Your task to perform on an android device: Clear all items from cart on target.com. Search for "amazon basics triple a" on target.com, select the first entry, and add it to the cart. Image 0: 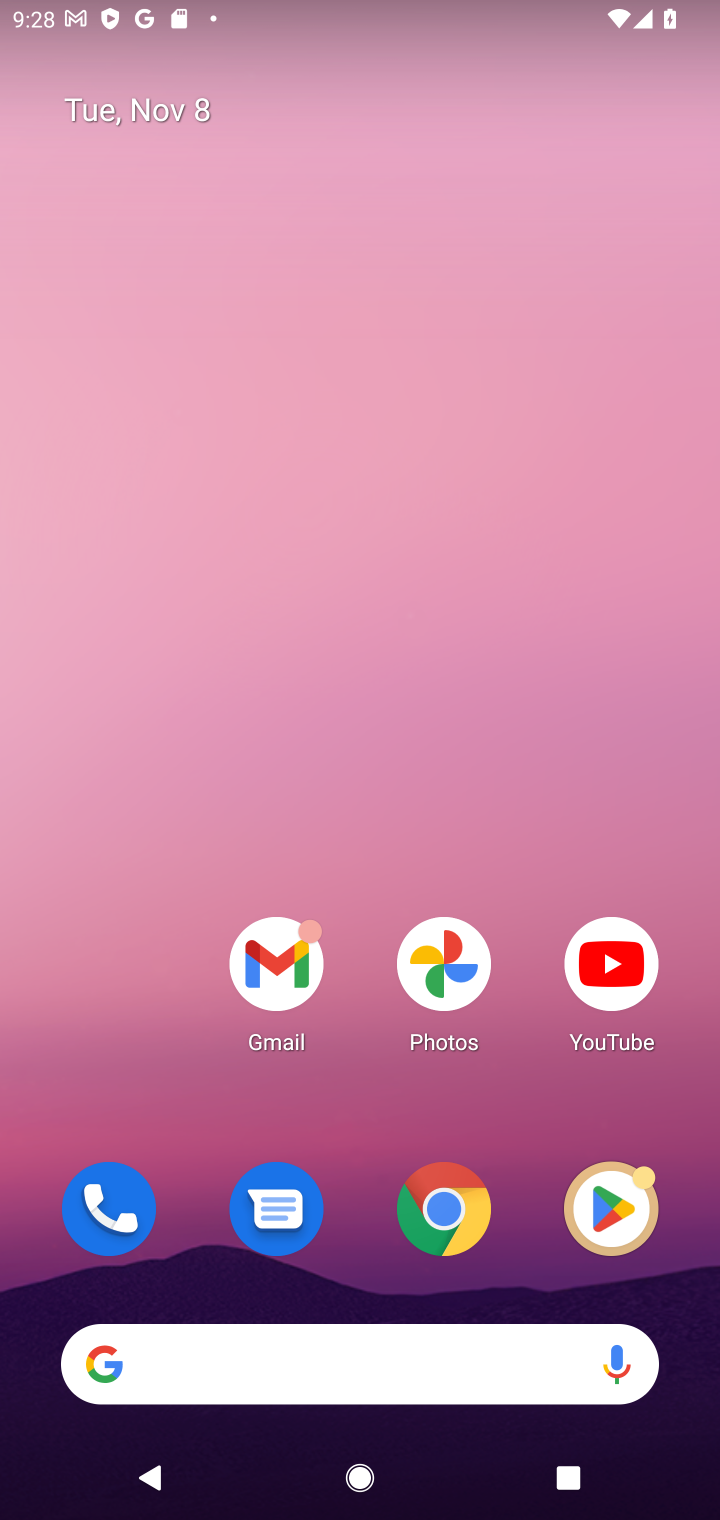
Step 0: click (453, 1224)
Your task to perform on an android device: Clear all items from cart on target.com. Search for "amazon basics triple a" on target.com, select the first entry, and add it to the cart. Image 1: 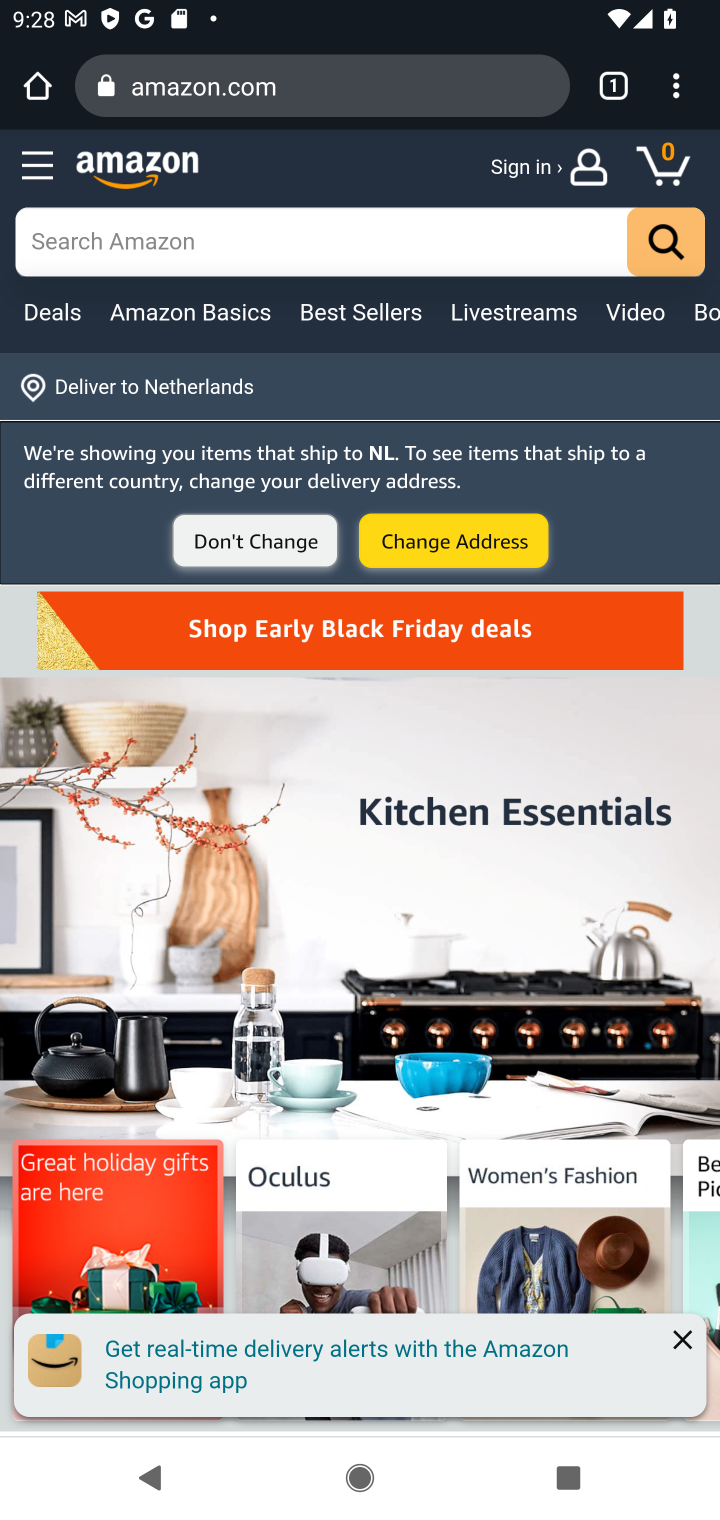
Step 1: click (626, 94)
Your task to perform on an android device: Clear all items from cart on target.com. Search for "amazon basics triple a" on target.com, select the first entry, and add it to the cart. Image 2: 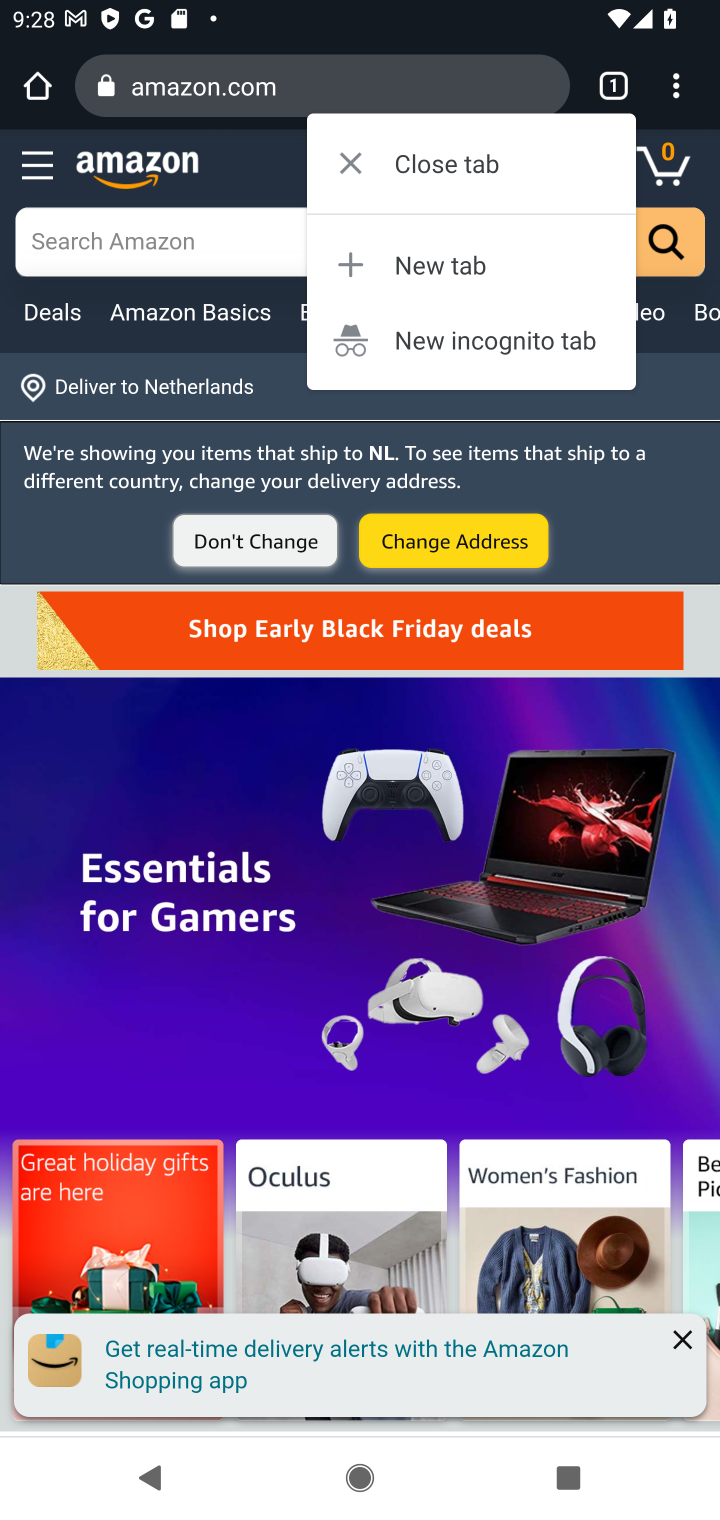
Step 2: click (614, 81)
Your task to perform on an android device: Clear all items from cart on target.com. Search for "amazon basics triple a" on target.com, select the first entry, and add it to the cart. Image 3: 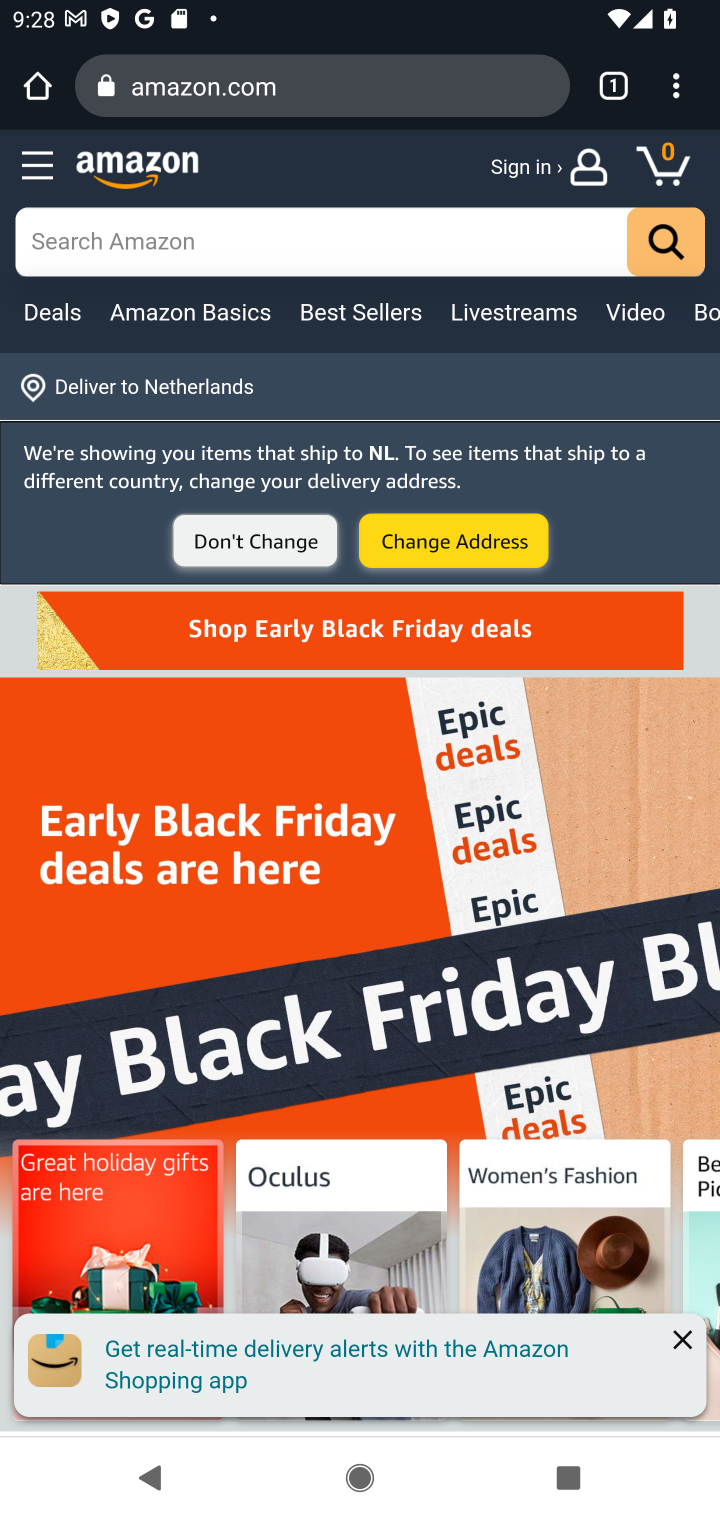
Step 3: click (612, 87)
Your task to perform on an android device: Clear all items from cart on target.com. Search for "amazon basics triple a" on target.com, select the first entry, and add it to the cart. Image 4: 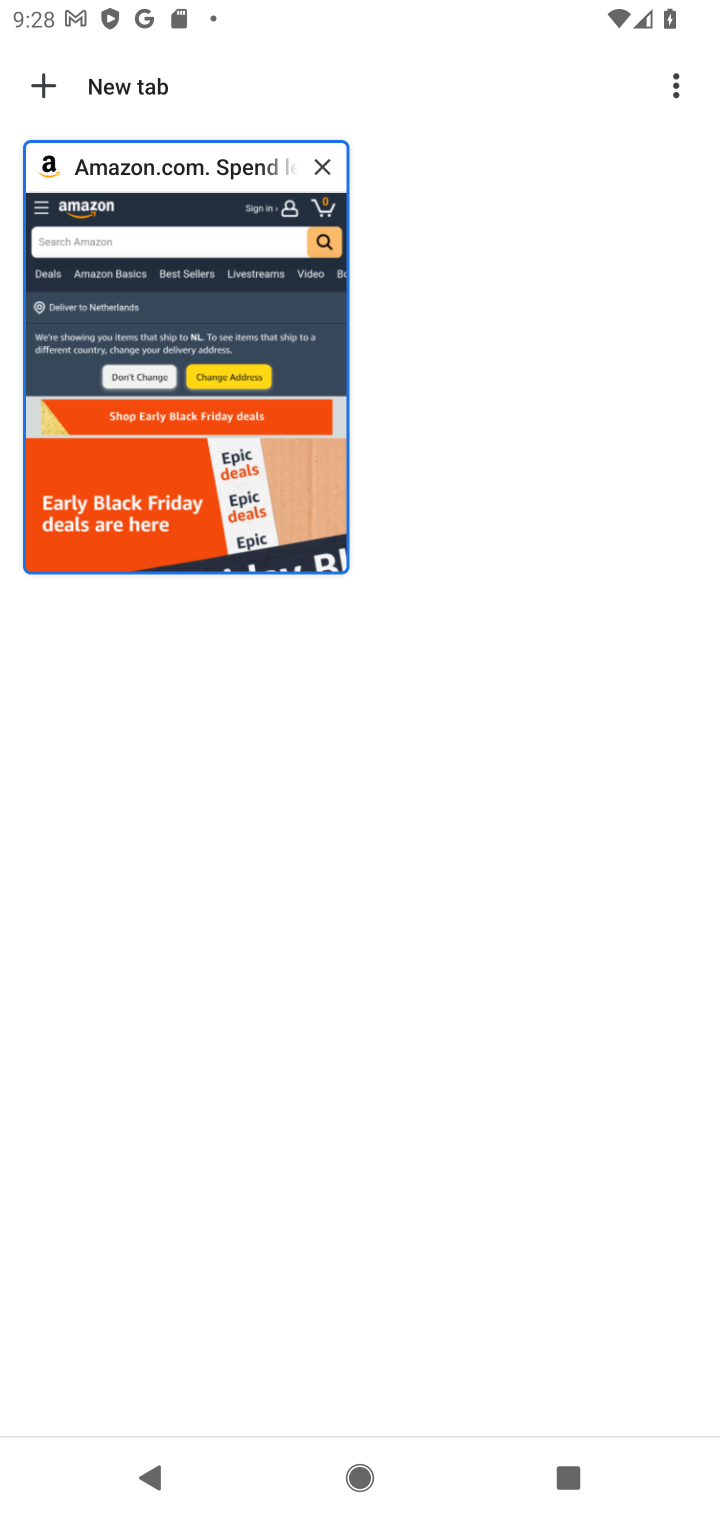
Step 4: click (42, 87)
Your task to perform on an android device: Clear all items from cart on target.com. Search for "amazon basics triple a" on target.com, select the first entry, and add it to the cart. Image 5: 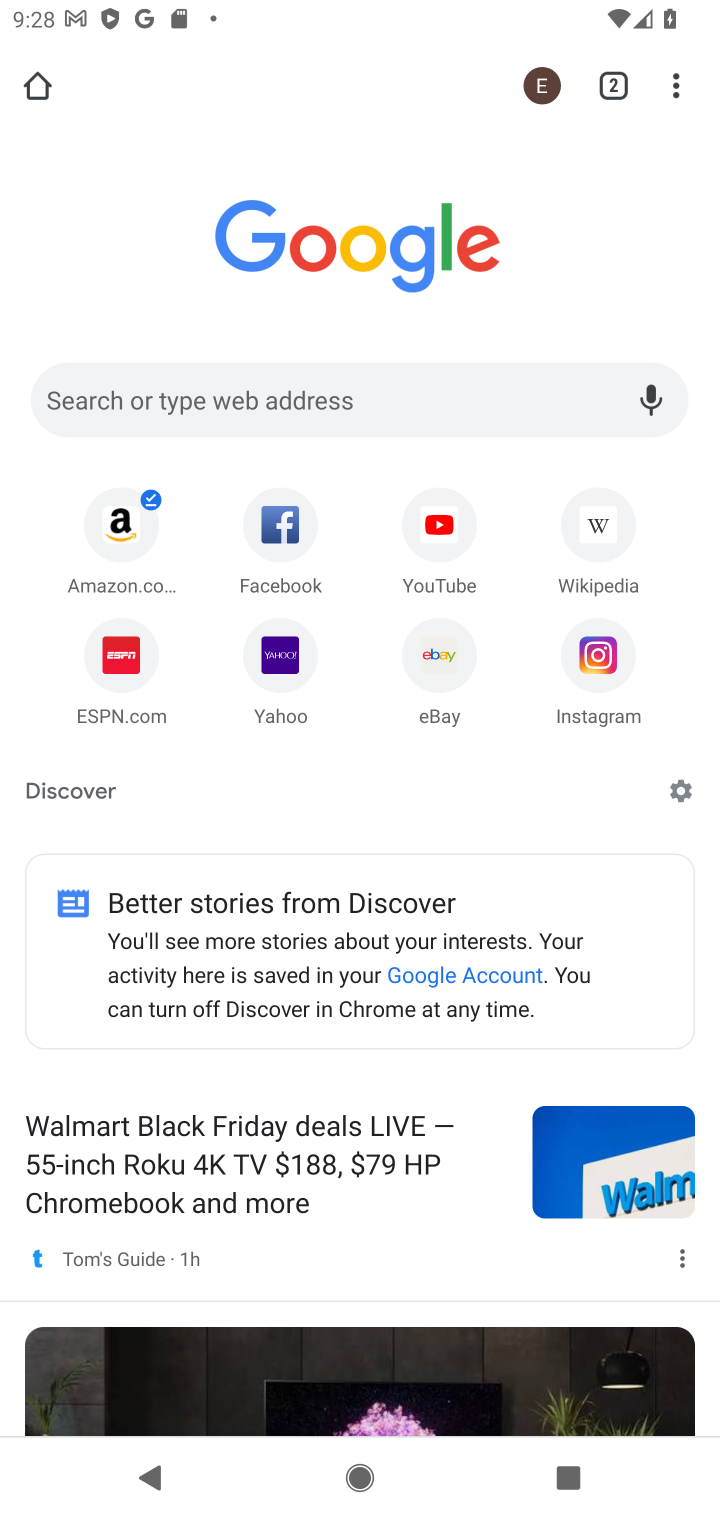
Step 5: click (221, 392)
Your task to perform on an android device: Clear all items from cart on target.com. Search for "amazon basics triple a" on target.com, select the first entry, and add it to the cart. Image 6: 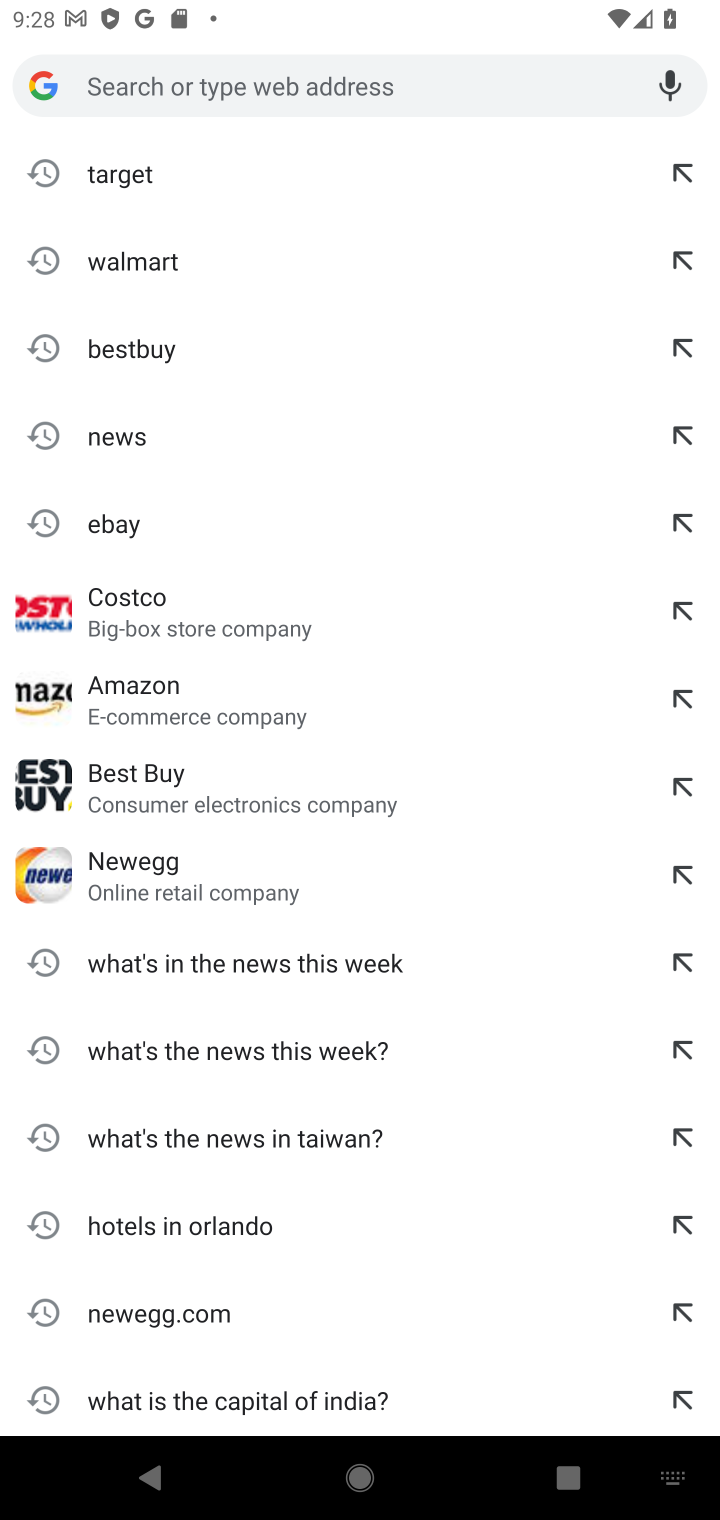
Step 6: click (140, 157)
Your task to perform on an android device: Clear all items from cart on target.com. Search for "amazon basics triple a" on target.com, select the first entry, and add it to the cart. Image 7: 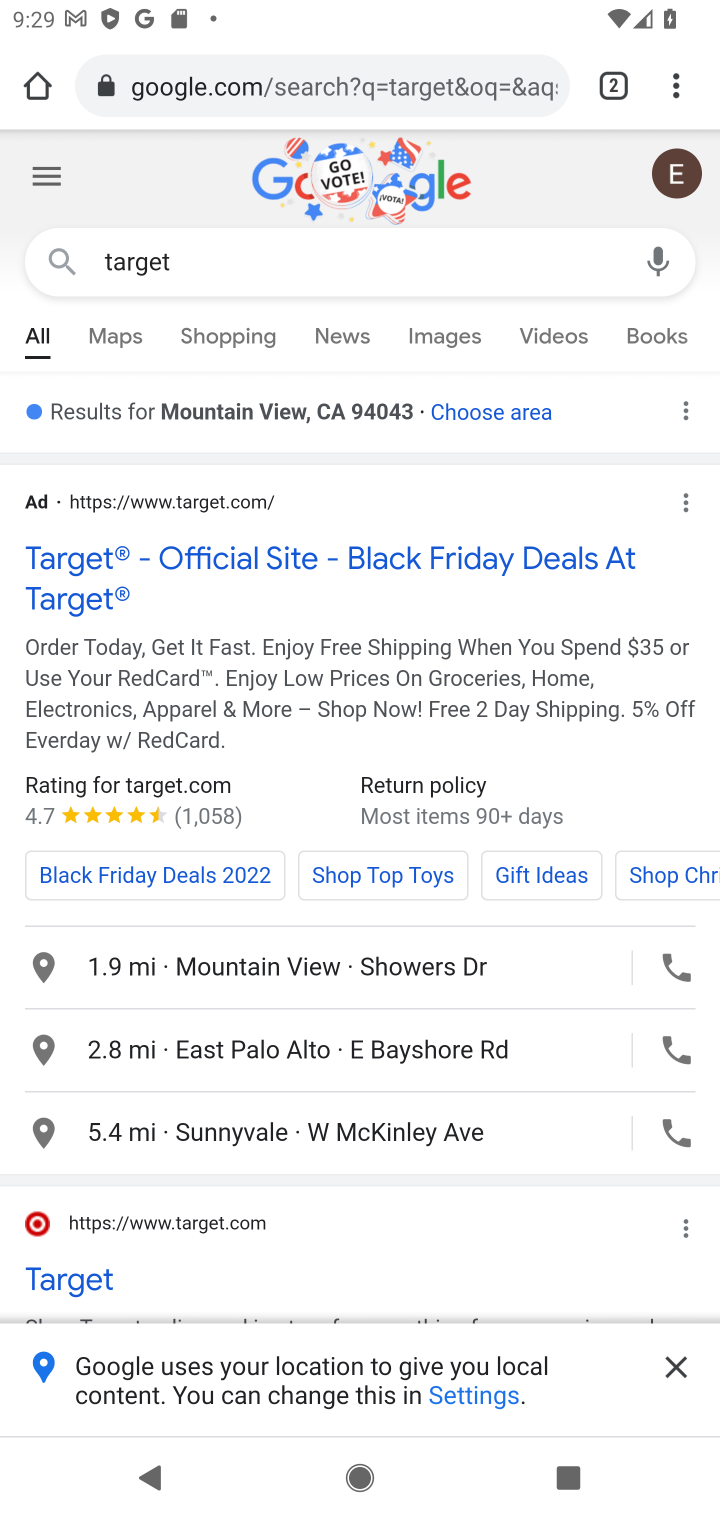
Step 7: drag from (251, 1131) to (349, 589)
Your task to perform on an android device: Clear all items from cart on target.com. Search for "amazon basics triple a" on target.com, select the first entry, and add it to the cart. Image 8: 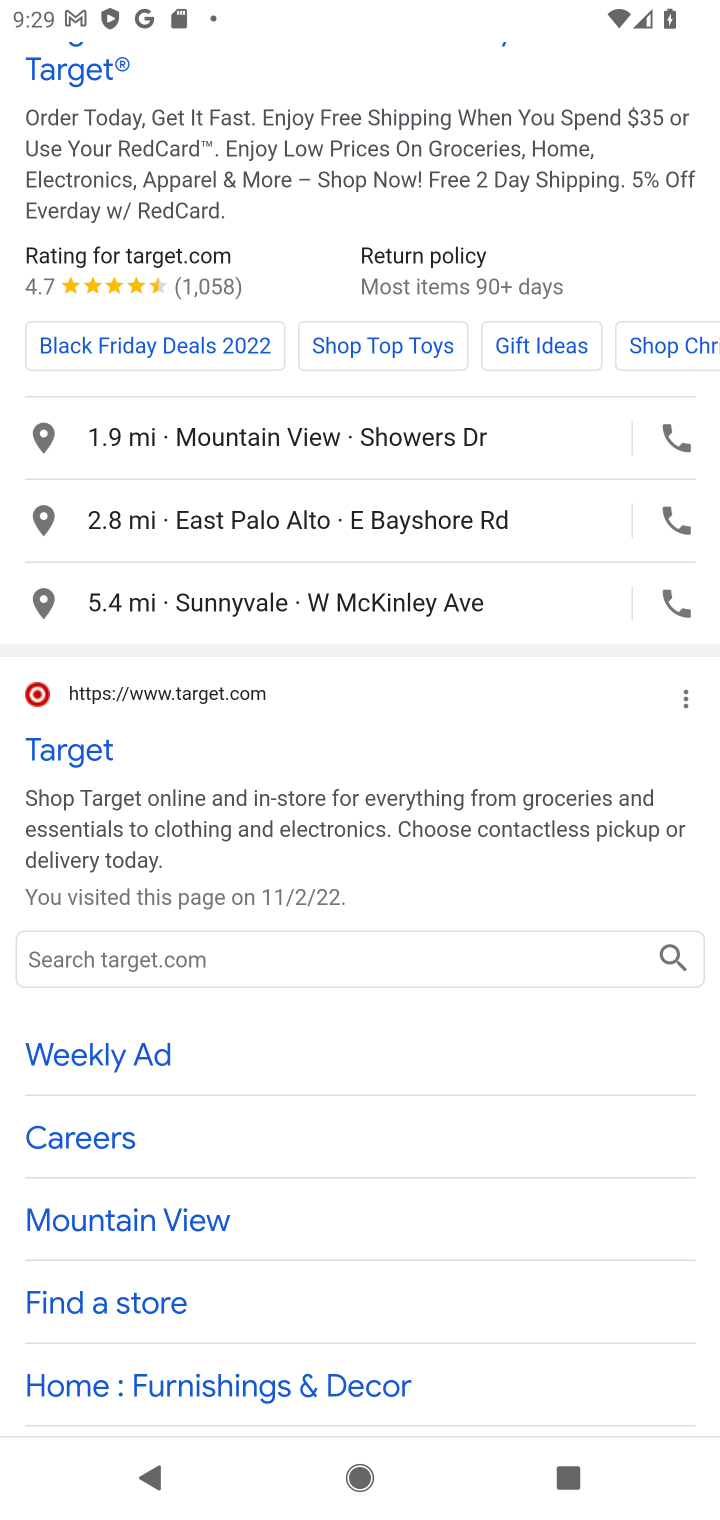
Step 8: click (126, 961)
Your task to perform on an android device: Clear all items from cart on target.com. Search for "amazon basics triple a" on target.com, select the first entry, and add it to the cart. Image 9: 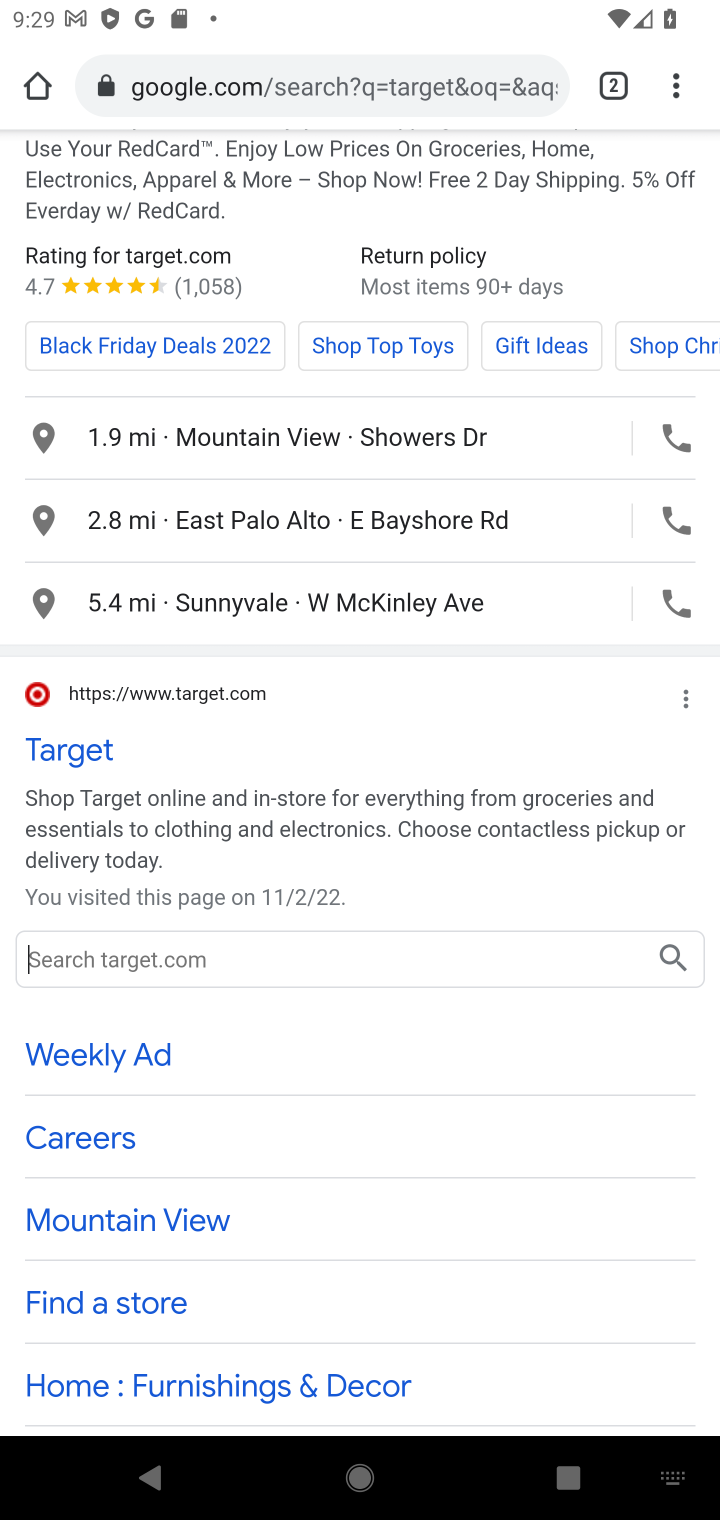
Step 9: type "amazon basics triple a batteery"
Your task to perform on an android device: Clear all items from cart on target.com. Search for "amazon basics triple a" on target.com, select the first entry, and add it to the cart. Image 10: 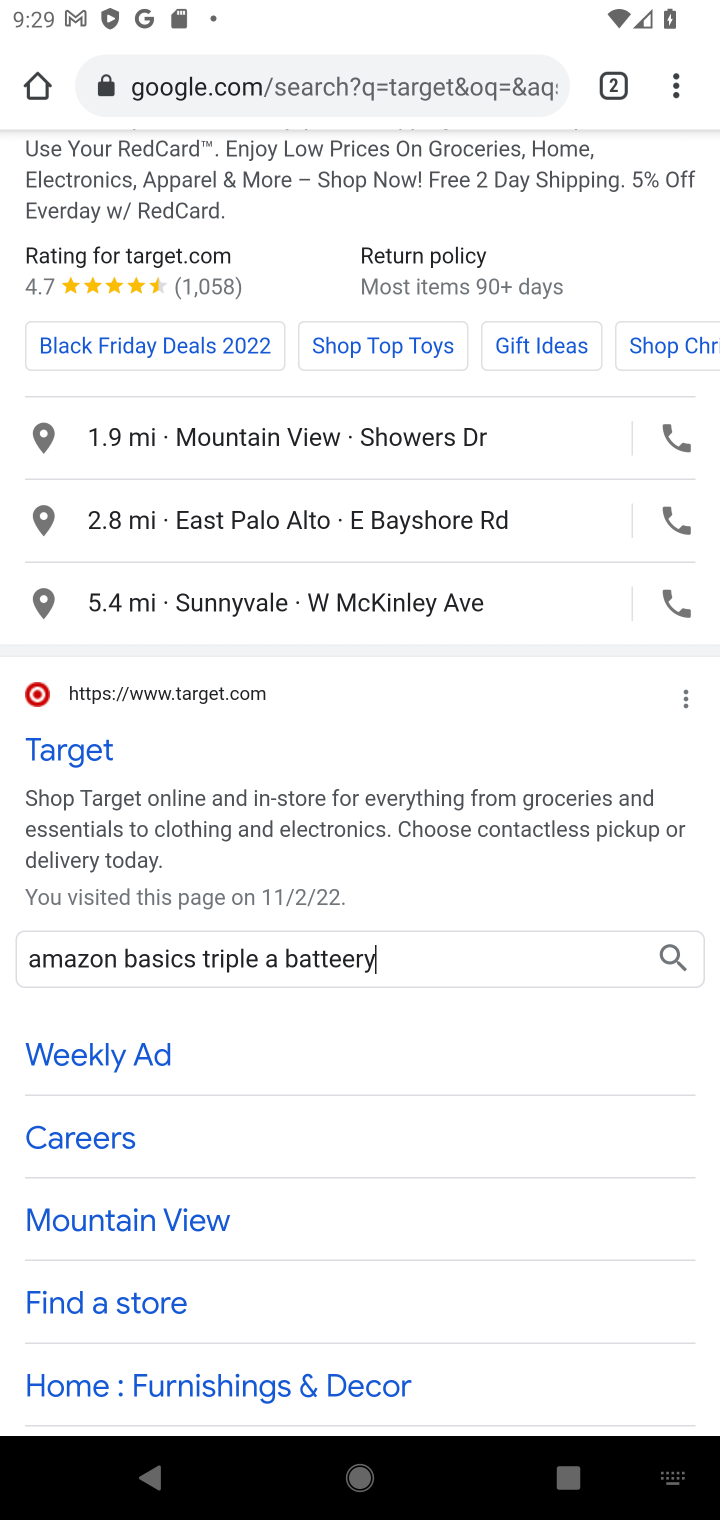
Step 10: click (668, 946)
Your task to perform on an android device: Clear all items from cart on target.com. Search for "amazon basics triple a" on target.com, select the first entry, and add it to the cart. Image 11: 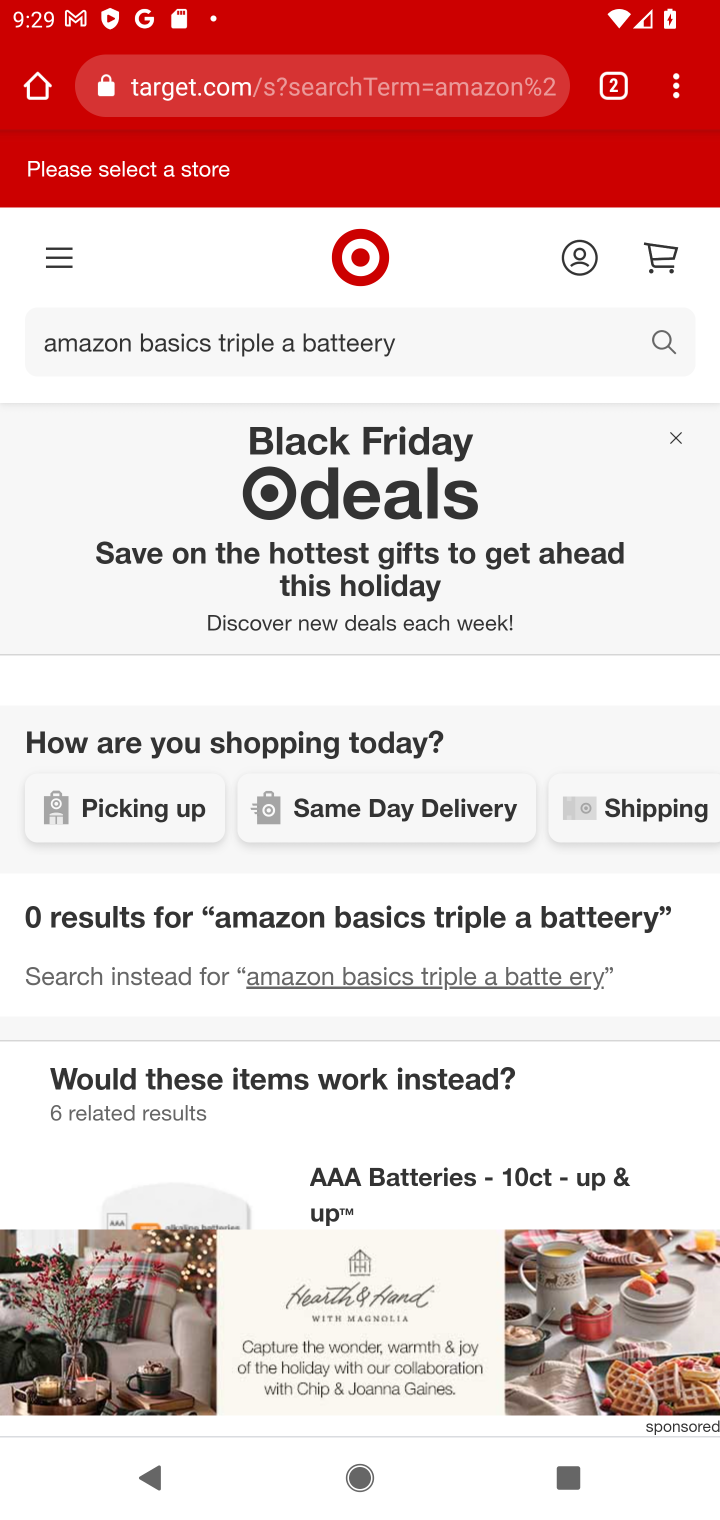
Step 11: drag from (400, 1203) to (438, 792)
Your task to perform on an android device: Clear all items from cart on target.com. Search for "amazon basics triple a" on target.com, select the first entry, and add it to the cart. Image 12: 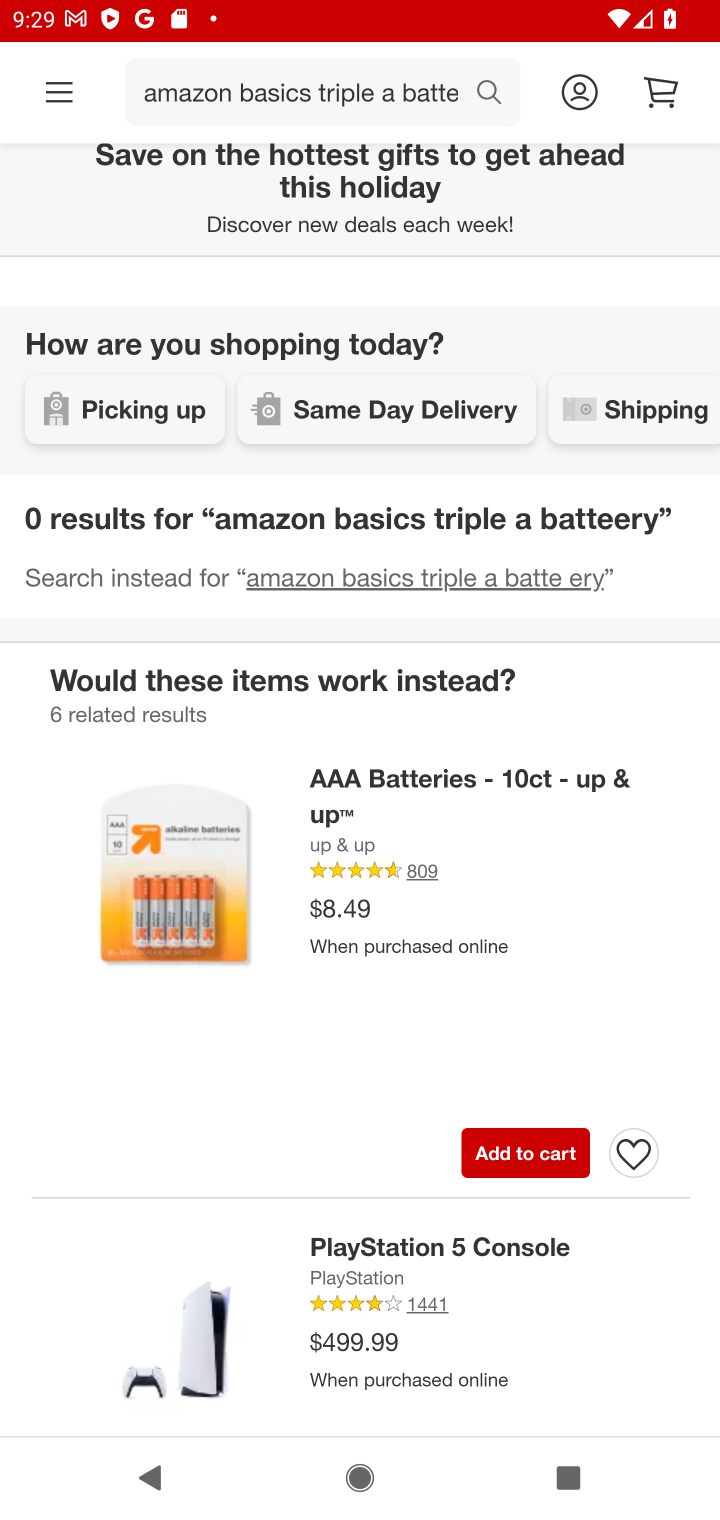
Step 12: drag from (449, 1058) to (409, 647)
Your task to perform on an android device: Clear all items from cart on target.com. Search for "amazon basics triple a" on target.com, select the first entry, and add it to the cart. Image 13: 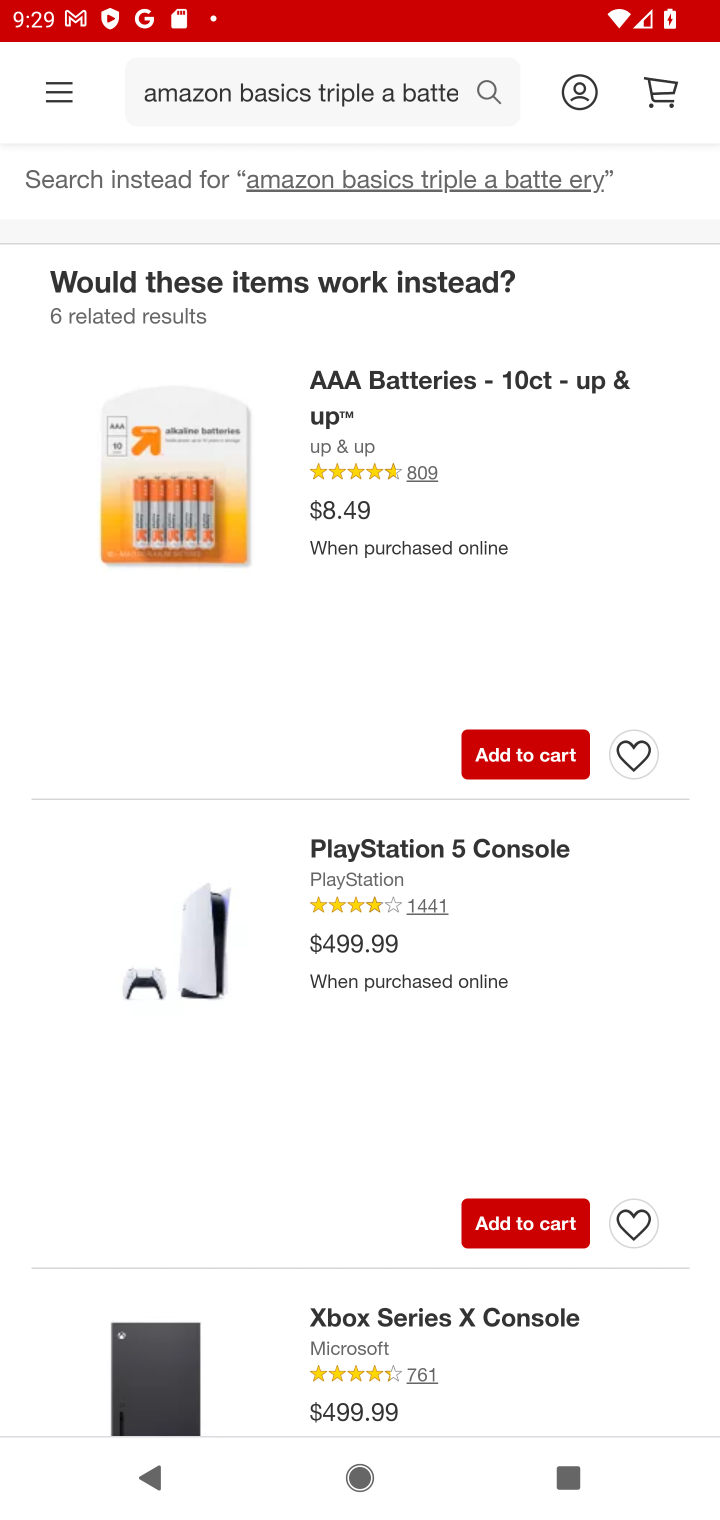
Step 13: click (496, 756)
Your task to perform on an android device: Clear all items from cart on target.com. Search for "amazon basics triple a" on target.com, select the first entry, and add it to the cart. Image 14: 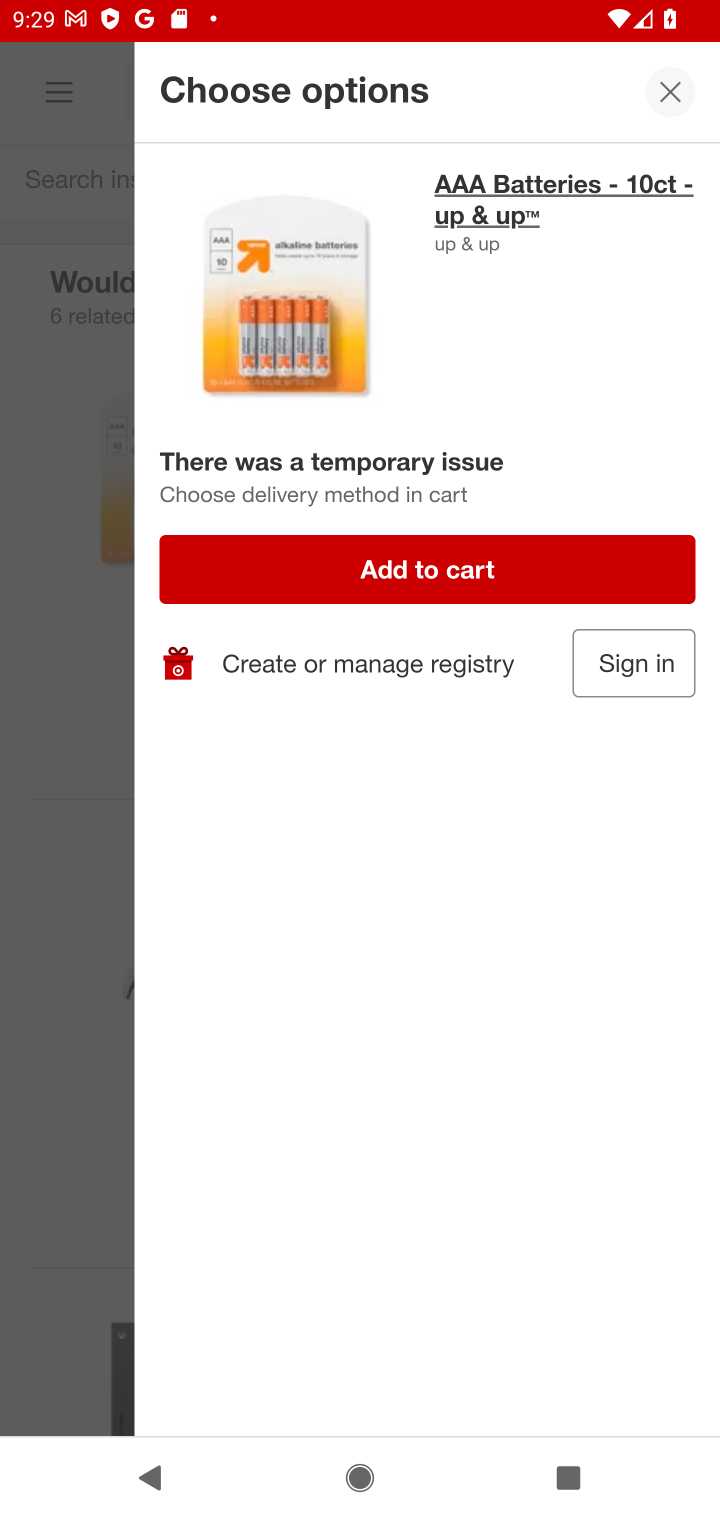
Step 14: task complete